Your task to perform on an android device: read, delete, or share a saved page in the chrome app Image 0: 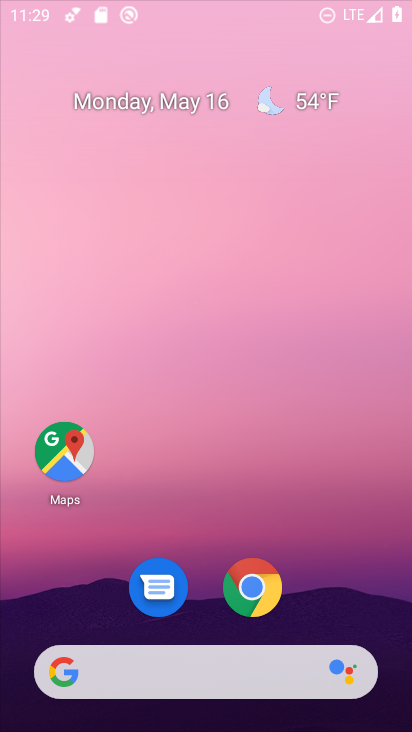
Step 0: drag from (217, 398) to (218, 203)
Your task to perform on an android device: read, delete, or share a saved page in the chrome app Image 1: 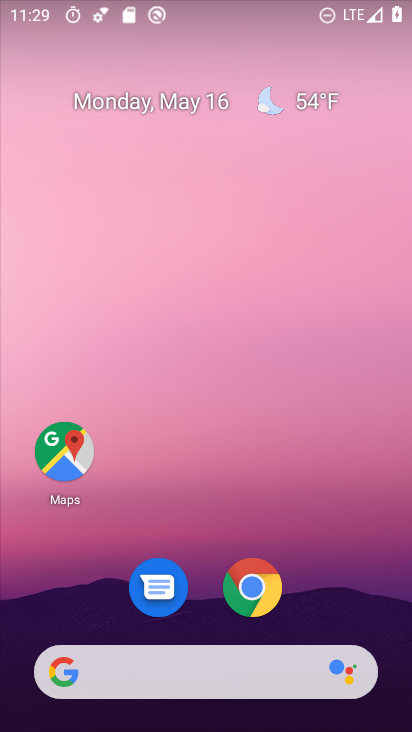
Step 1: click (246, 583)
Your task to perform on an android device: read, delete, or share a saved page in the chrome app Image 2: 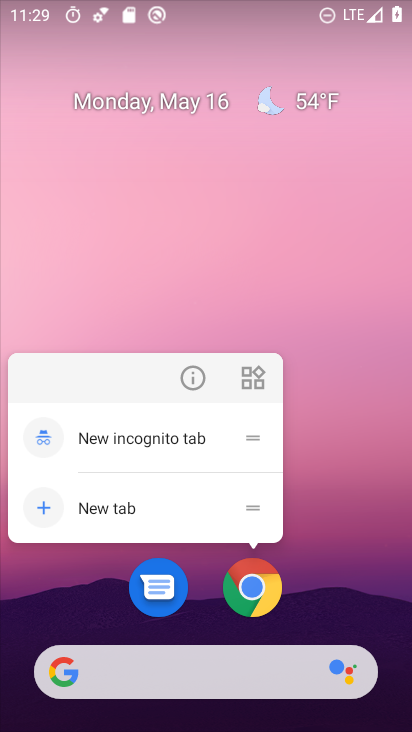
Step 2: click (194, 386)
Your task to perform on an android device: read, delete, or share a saved page in the chrome app Image 3: 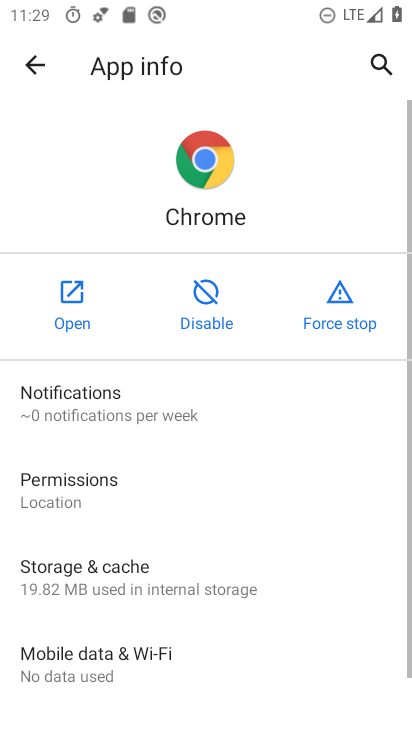
Step 3: click (102, 291)
Your task to perform on an android device: read, delete, or share a saved page in the chrome app Image 4: 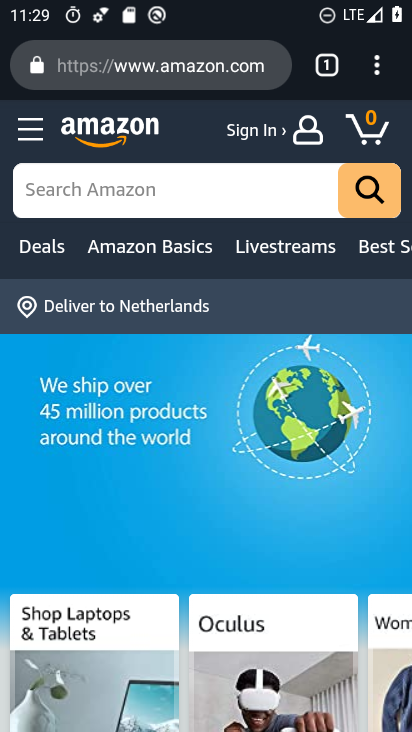
Step 4: drag from (200, 540) to (218, 104)
Your task to perform on an android device: read, delete, or share a saved page in the chrome app Image 5: 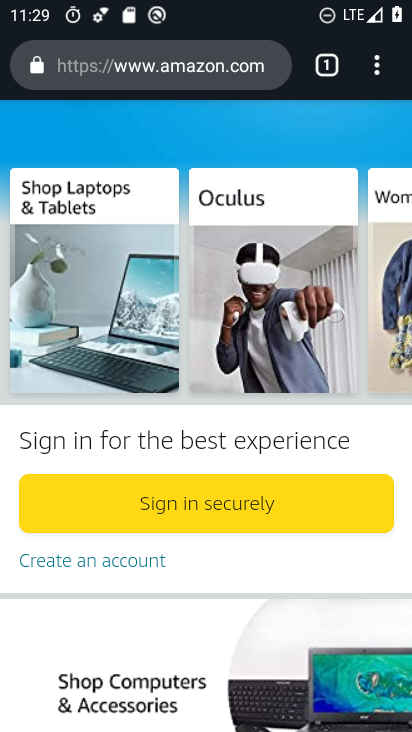
Step 5: drag from (226, 143) to (399, 228)
Your task to perform on an android device: read, delete, or share a saved page in the chrome app Image 6: 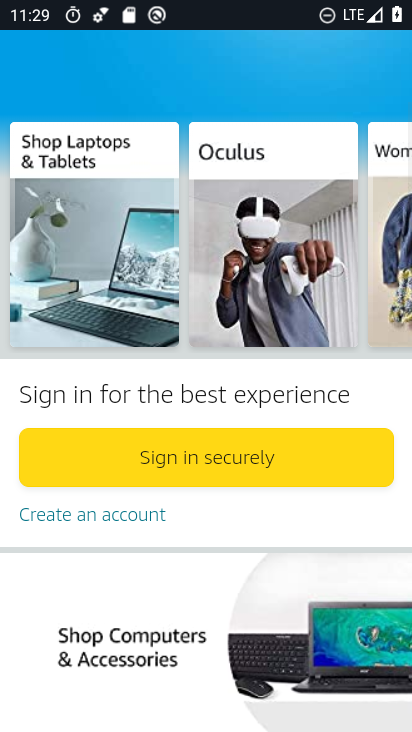
Step 6: click (372, 70)
Your task to perform on an android device: read, delete, or share a saved page in the chrome app Image 7: 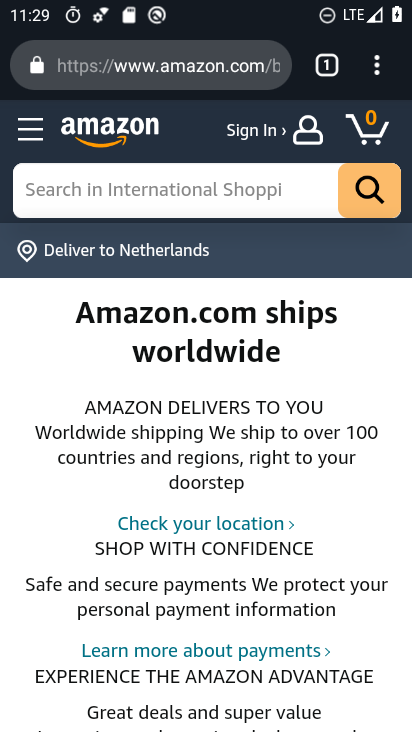
Step 7: click (372, 70)
Your task to perform on an android device: read, delete, or share a saved page in the chrome app Image 8: 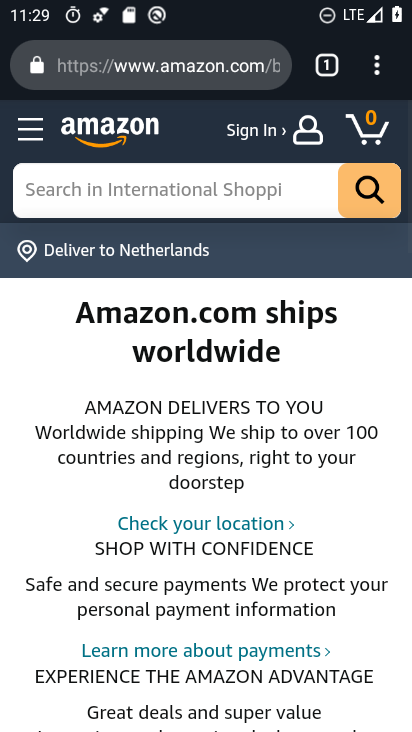
Step 8: click (371, 68)
Your task to perform on an android device: read, delete, or share a saved page in the chrome app Image 9: 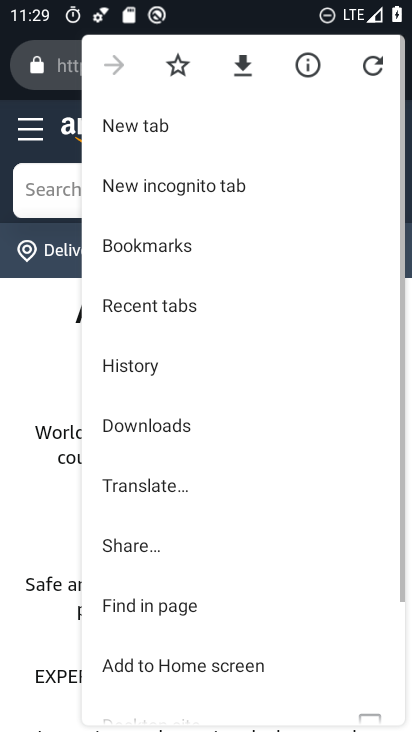
Step 9: drag from (282, 663) to (288, 254)
Your task to perform on an android device: read, delete, or share a saved page in the chrome app Image 10: 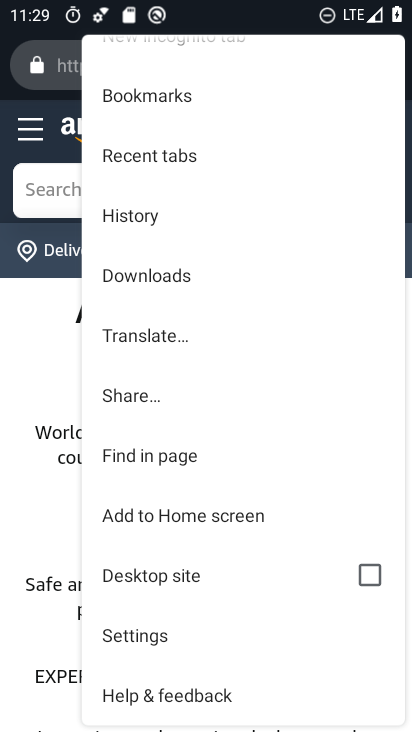
Step 10: click (217, 109)
Your task to perform on an android device: read, delete, or share a saved page in the chrome app Image 11: 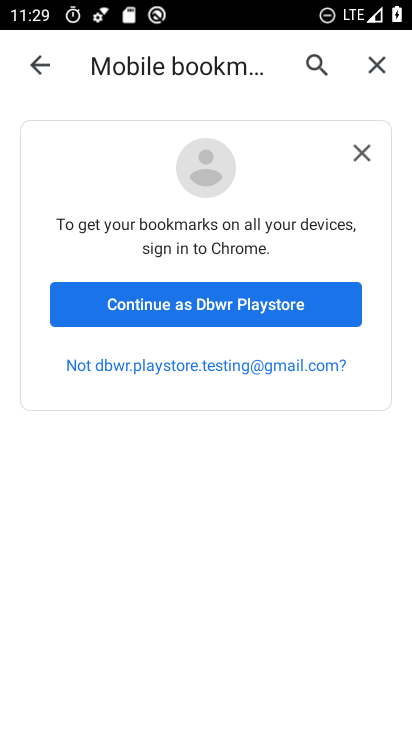
Step 11: drag from (253, 553) to (327, 129)
Your task to perform on an android device: read, delete, or share a saved page in the chrome app Image 12: 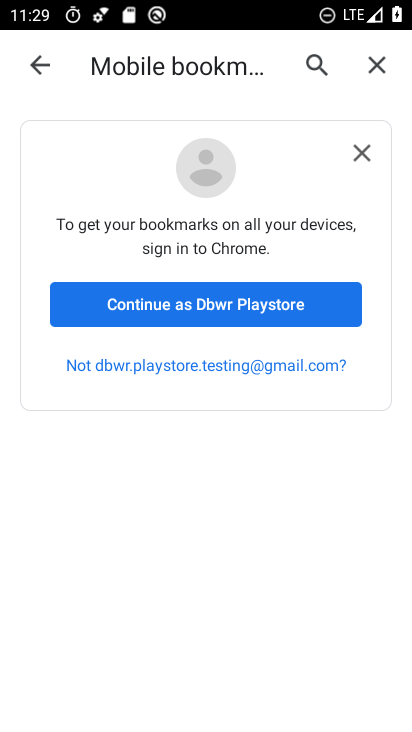
Step 12: click (370, 145)
Your task to perform on an android device: read, delete, or share a saved page in the chrome app Image 13: 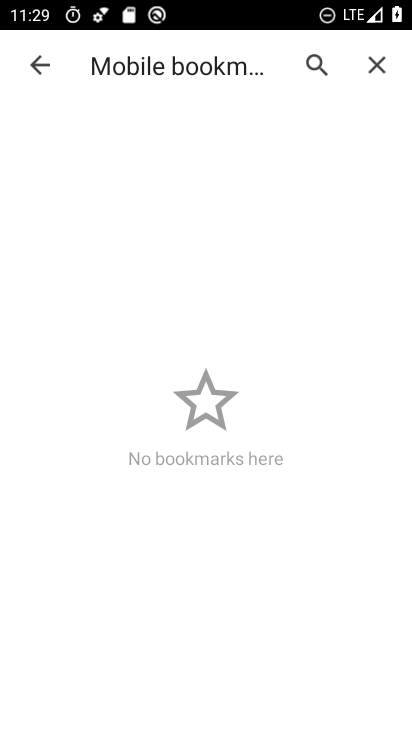
Step 13: task complete